Your task to perform on an android device: open chrome privacy settings Image 0: 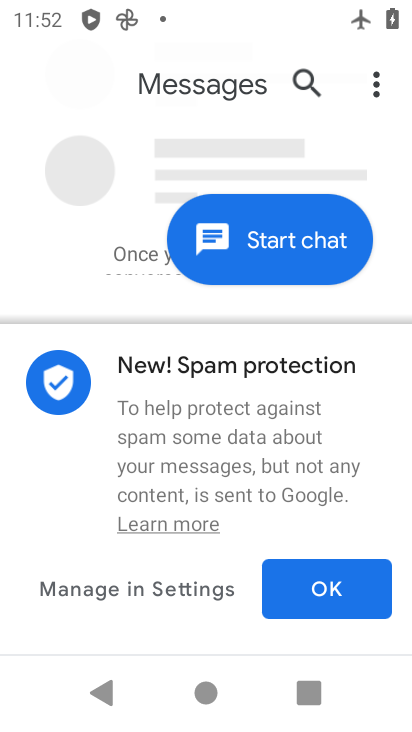
Step 0: press home button
Your task to perform on an android device: open chrome privacy settings Image 1: 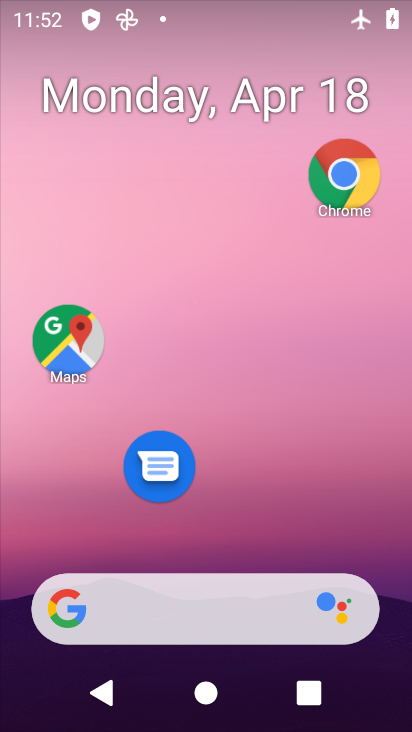
Step 1: click (358, 189)
Your task to perform on an android device: open chrome privacy settings Image 2: 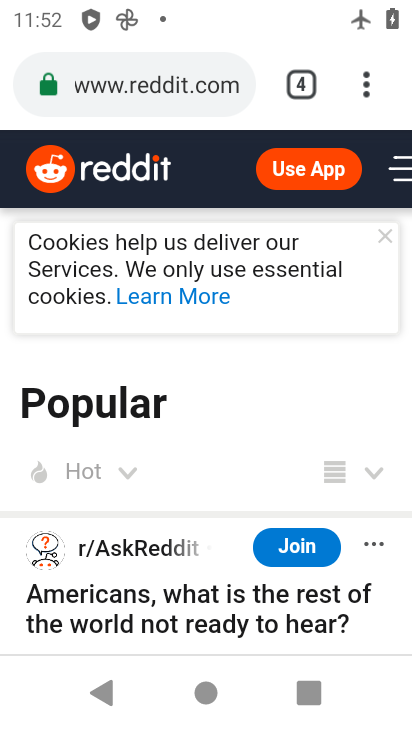
Step 2: click (369, 85)
Your task to perform on an android device: open chrome privacy settings Image 3: 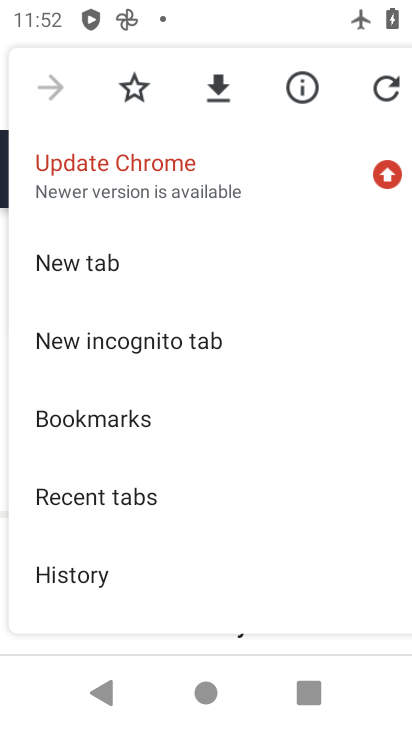
Step 3: drag from (226, 530) to (234, 270)
Your task to perform on an android device: open chrome privacy settings Image 4: 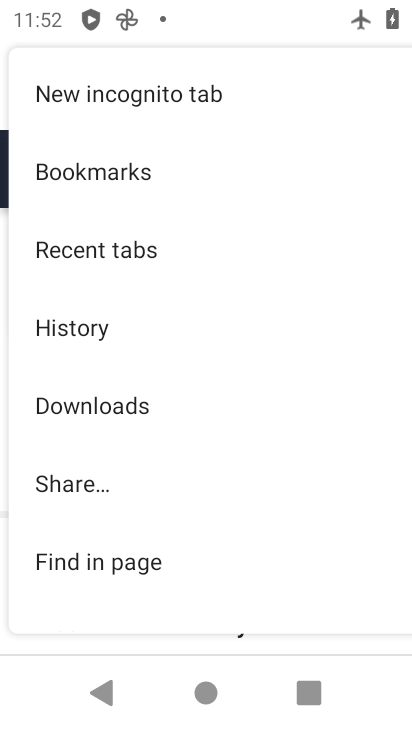
Step 4: drag from (217, 516) to (201, 254)
Your task to perform on an android device: open chrome privacy settings Image 5: 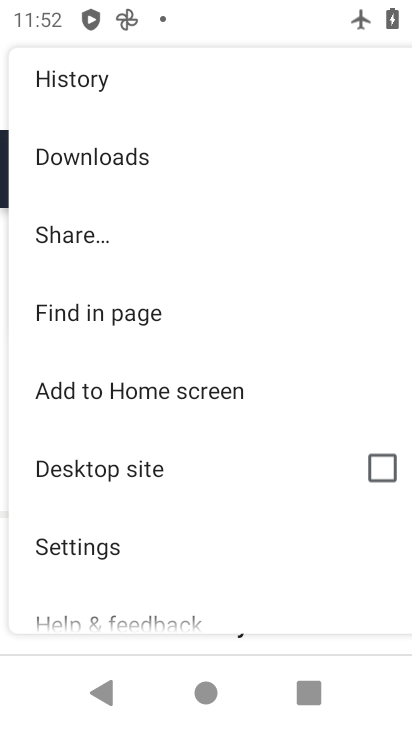
Step 5: click (189, 548)
Your task to perform on an android device: open chrome privacy settings Image 6: 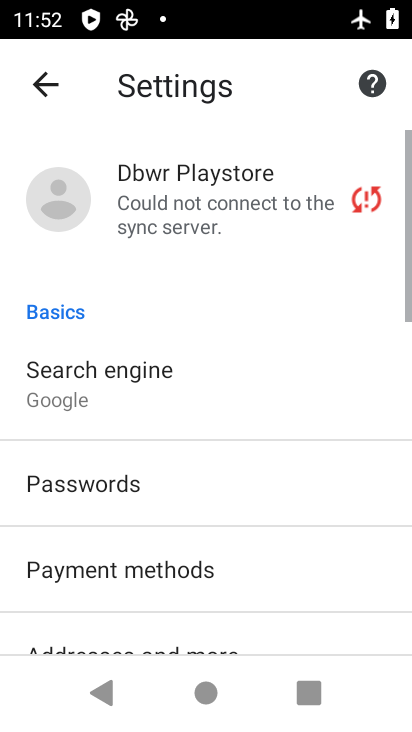
Step 6: drag from (187, 531) to (176, 370)
Your task to perform on an android device: open chrome privacy settings Image 7: 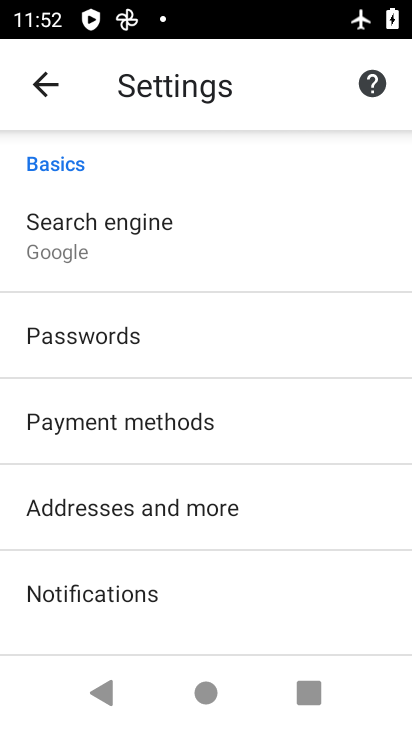
Step 7: drag from (192, 579) to (201, 380)
Your task to perform on an android device: open chrome privacy settings Image 8: 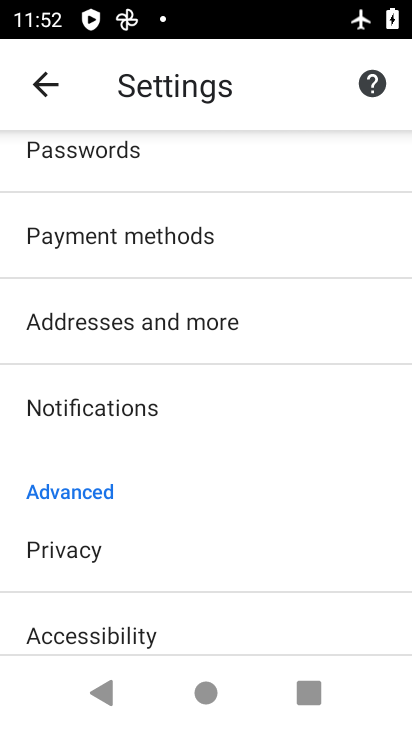
Step 8: drag from (213, 538) to (188, 402)
Your task to perform on an android device: open chrome privacy settings Image 9: 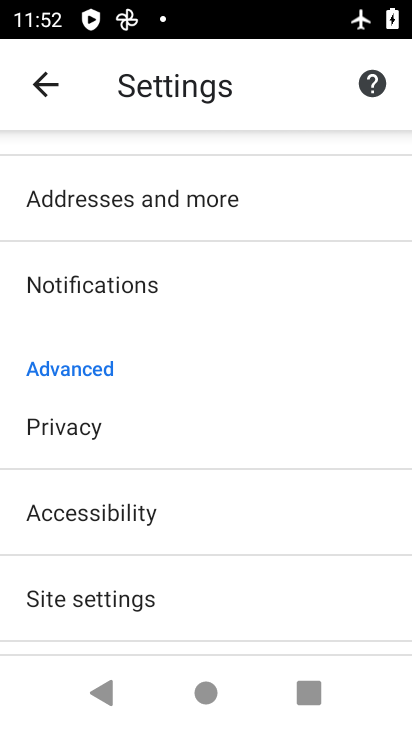
Step 9: click (95, 440)
Your task to perform on an android device: open chrome privacy settings Image 10: 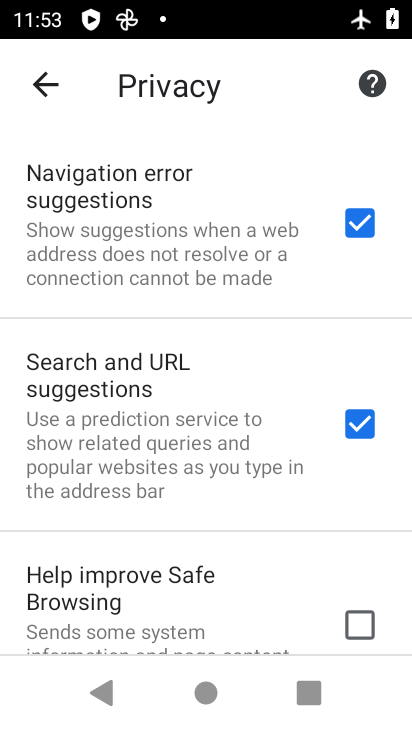
Step 10: task complete